Your task to perform on an android device: find photos in the google photos app Image 0: 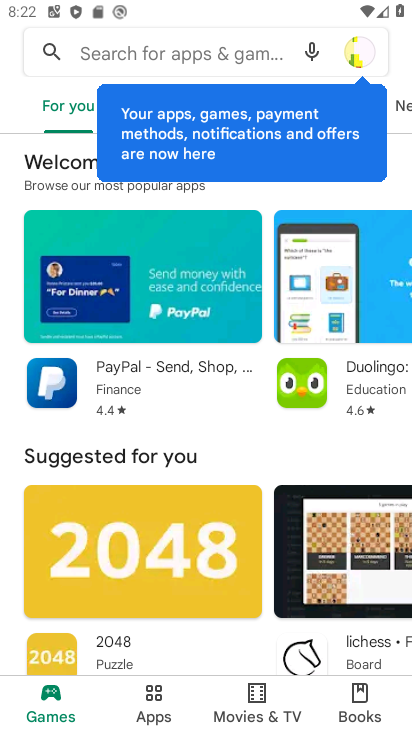
Step 0: press home button
Your task to perform on an android device: find photos in the google photos app Image 1: 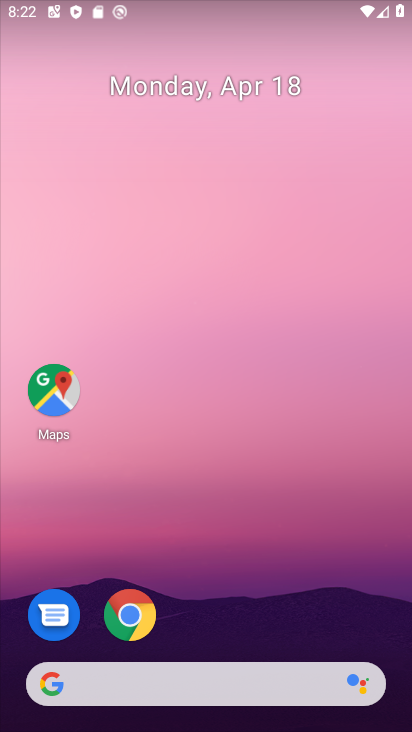
Step 1: drag from (218, 526) to (315, 91)
Your task to perform on an android device: find photos in the google photos app Image 2: 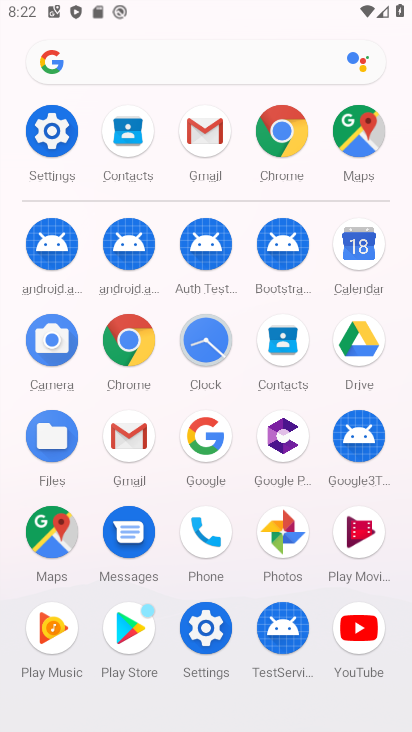
Step 2: click (274, 523)
Your task to perform on an android device: find photos in the google photos app Image 3: 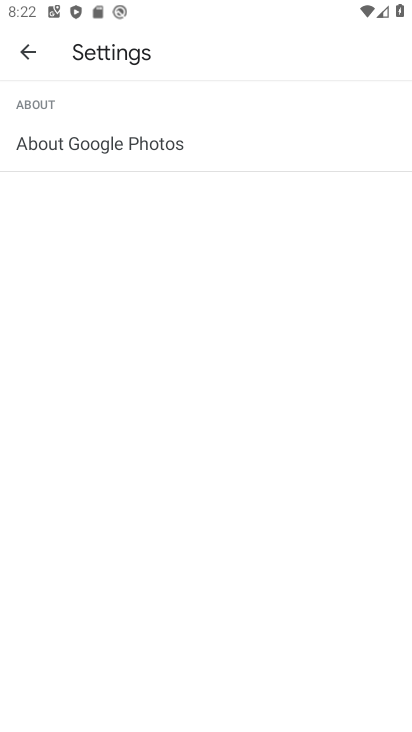
Step 3: click (28, 46)
Your task to perform on an android device: find photos in the google photos app Image 4: 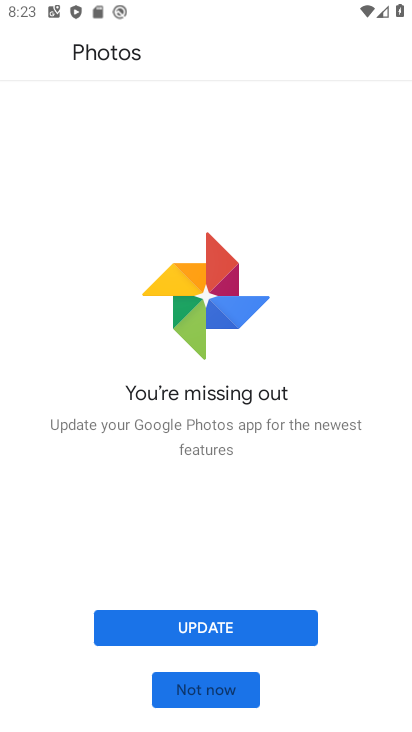
Step 4: click (212, 691)
Your task to perform on an android device: find photos in the google photos app Image 5: 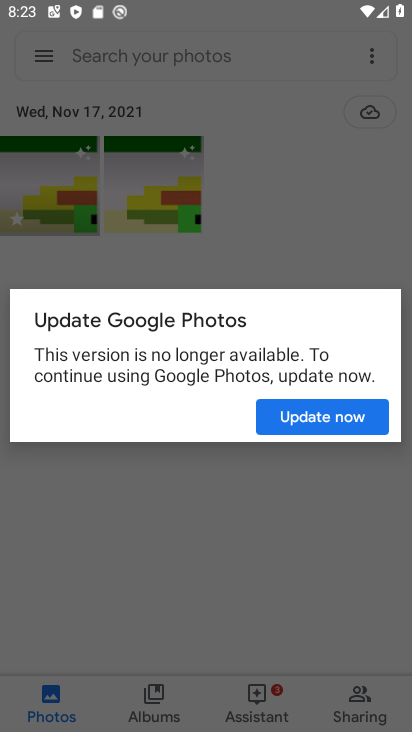
Step 5: click (361, 415)
Your task to perform on an android device: find photos in the google photos app Image 6: 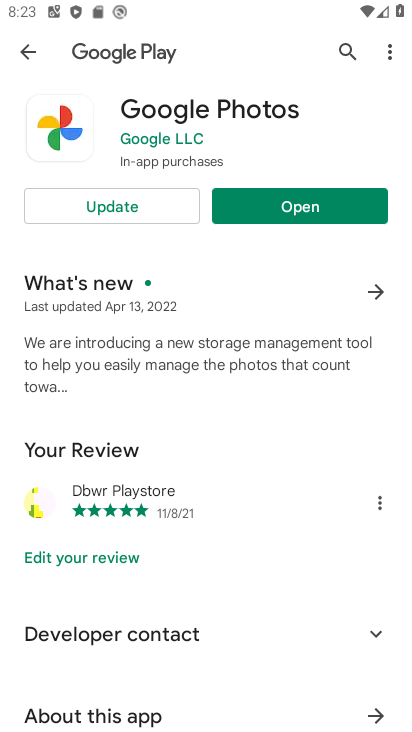
Step 6: click (171, 206)
Your task to perform on an android device: find photos in the google photos app Image 7: 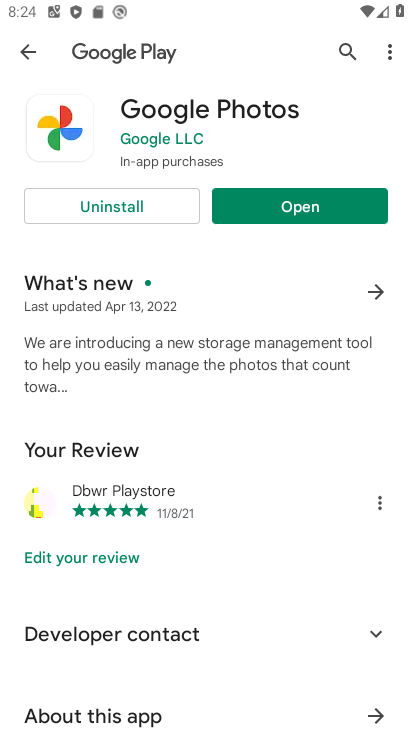
Step 7: click (339, 199)
Your task to perform on an android device: find photos in the google photos app Image 8: 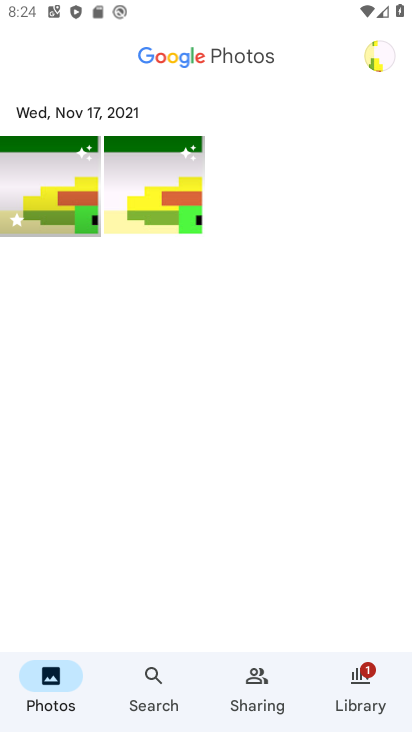
Step 8: task complete